Your task to perform on an android device: find snoozed emails in the gmail app Image 0: 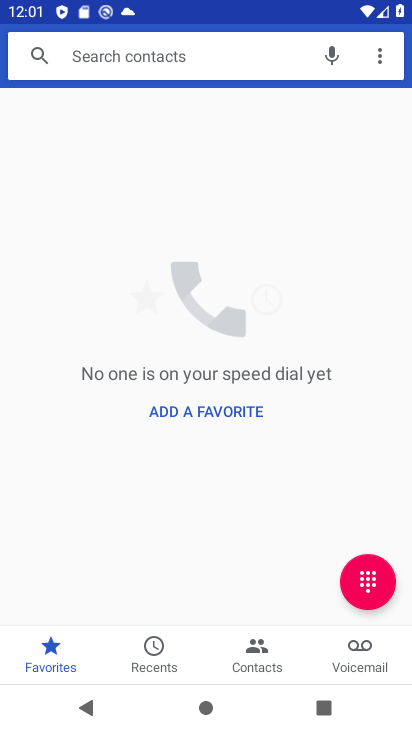
Step 0: press home button
Your task to perform on an android device: find snoozed emails in the gmail app Image 1: 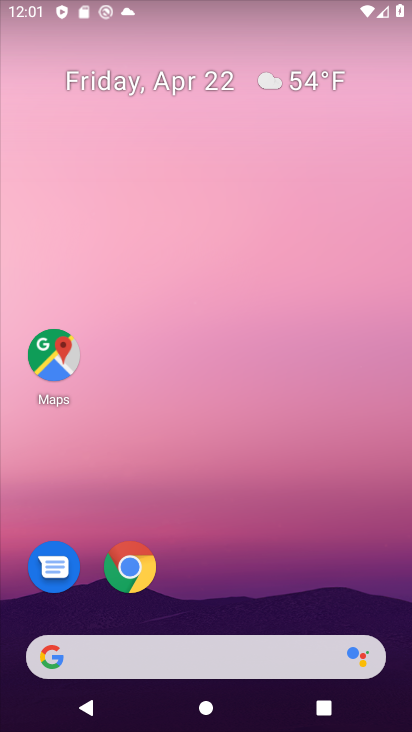
Step 1: drag from (266, 475) to (274, 75)
Your task to perform on an android device: find snoozed emails in the gmail app Image 2: 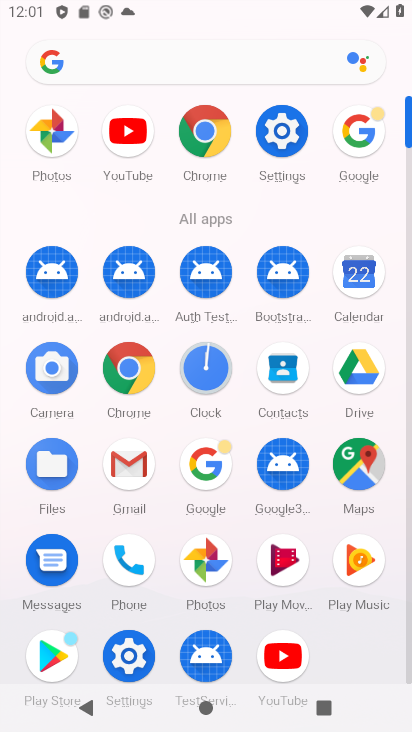
Step 2: drag from (261, 476) to (271, 149)
Your task to perform on an android device: find snoozed emails in the gmail app Image 3: 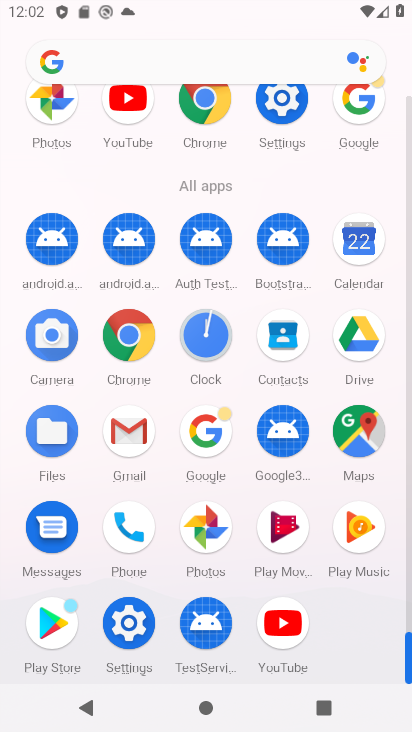
Step 3: click (121, 442)
Your task to perform on an android device: find snoozed emails in the gmail app Image 4: 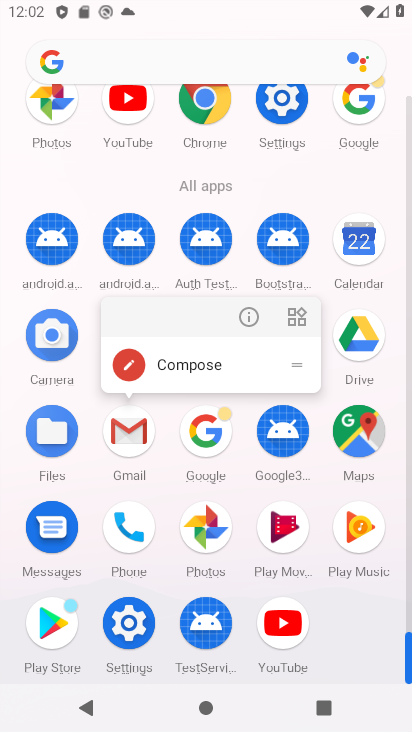
Step 4: click (147, 453)
Your task to perform on an android device: find snoozed emails in the gmail app Image 5: 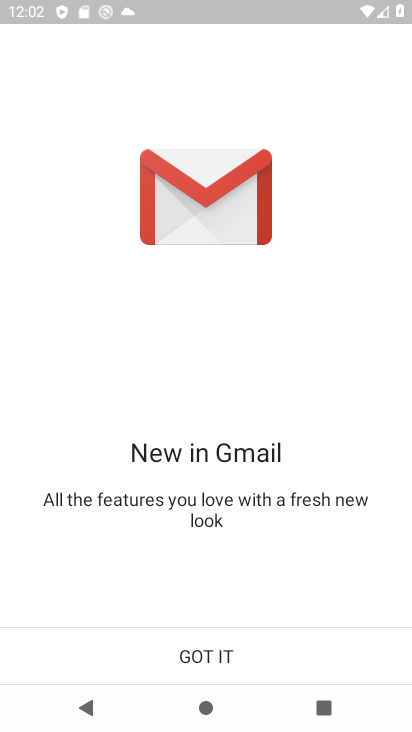
Step 5: click (250, 663)
Your task to perform on an android device: find snoozed emails in the gmail app Image 6: 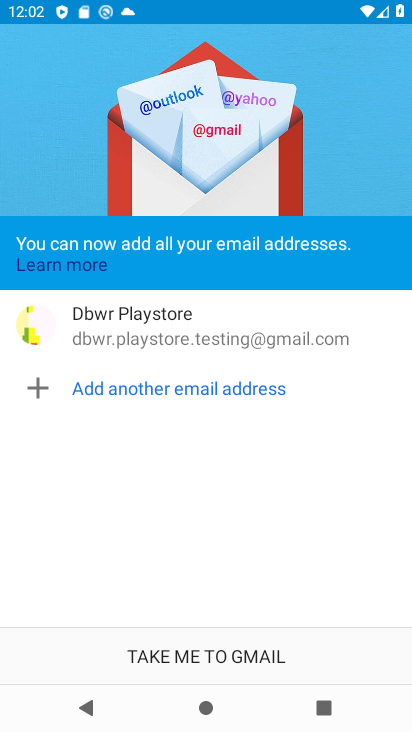
Step 6: click (253, 662)
Your task to perform on an android device: find snoozed emails in the gmail app Image 7: 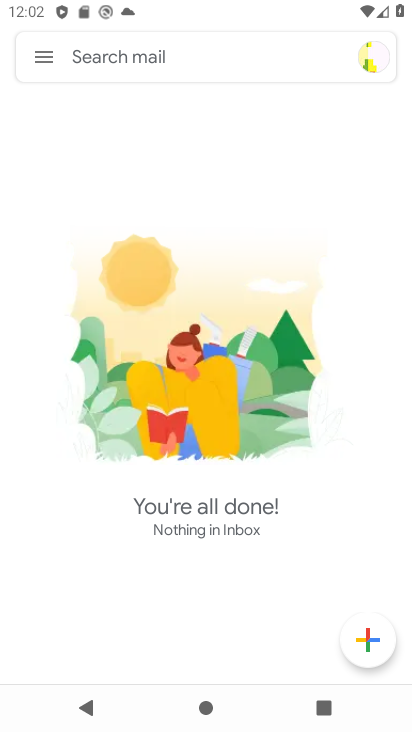
Step 7: click (44, 69)
Your task to perform on an android device: find snoozed emails in the gmail app Image 8: 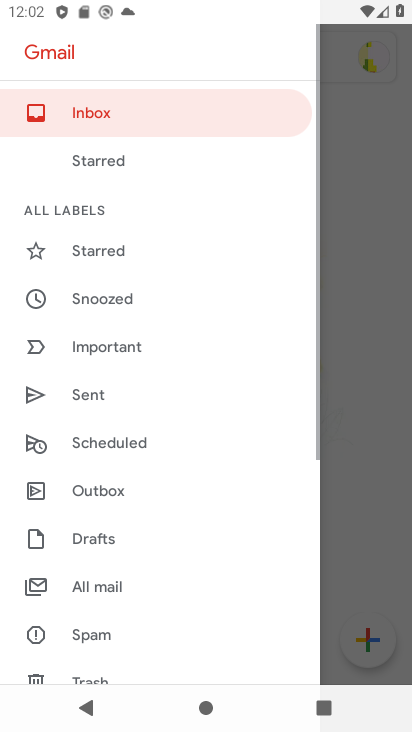
Step 8: drag from (145, 560) to (167, 158)
Your task to perform on an android device: find snoozed emails in the gmail app Image 9: 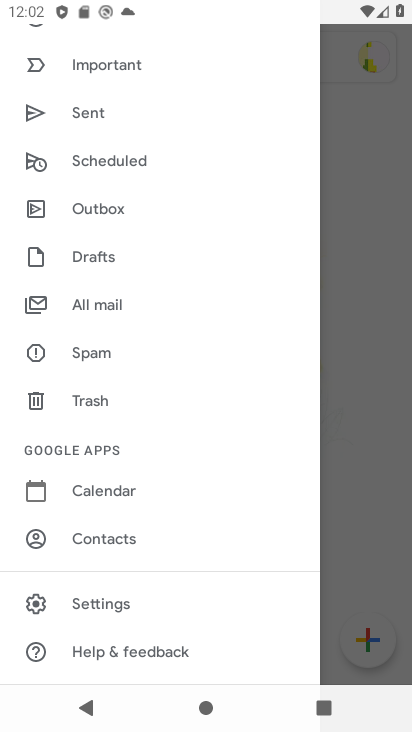
Step 9: drag from (165, 304) to (162, 589)
Your task to perform on an android device: find snoozed emails in the gmail app Image 10: 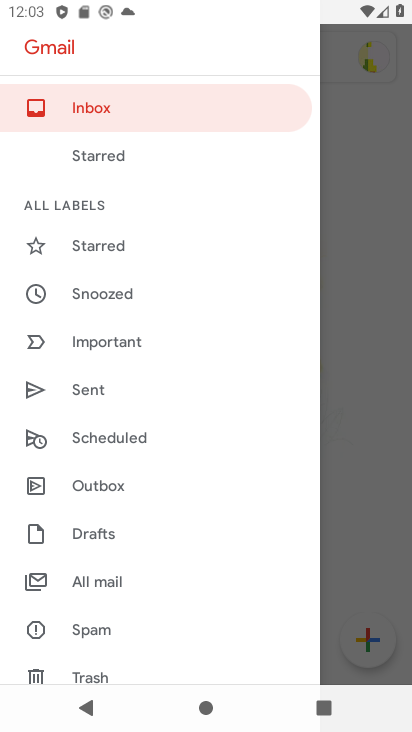
Step 10: click (149, 289)
Your task to perform on an android device: find snoozed emails in the gmail app Image 11: 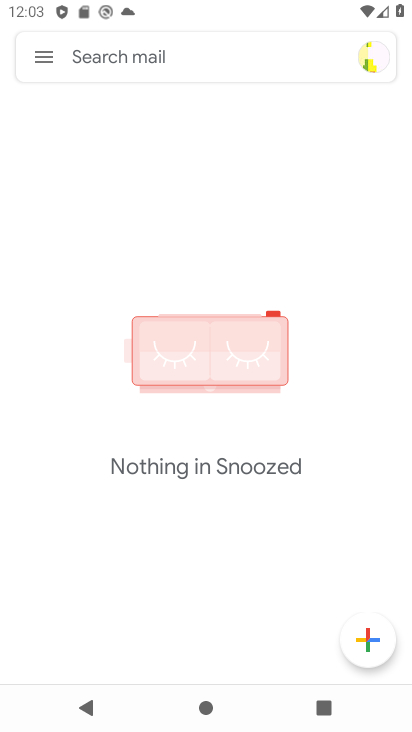
Step 11: task complete